Your task to perform on an android device: Open internet settings Image 0: 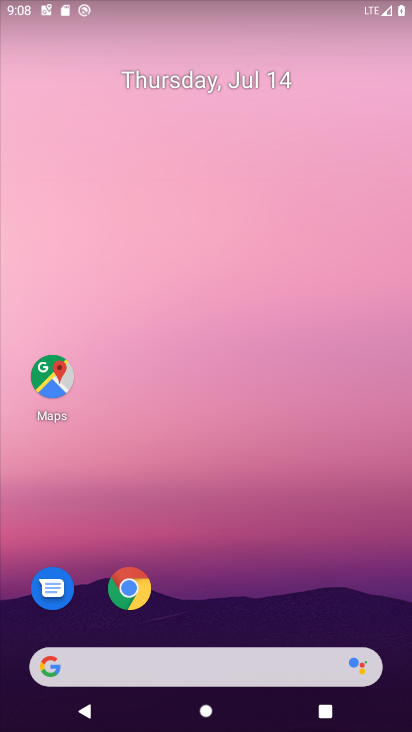
Step 0: drag from (288, 575) to (292, 26)
Your task to perform on an android device: Open internet settings Image 1: 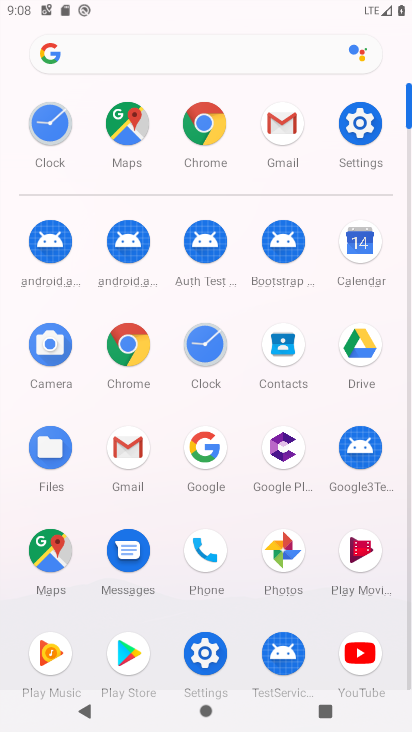
Step 1: click (204, 650)
Your task to perform on an android device: Open internet settings Image 2: 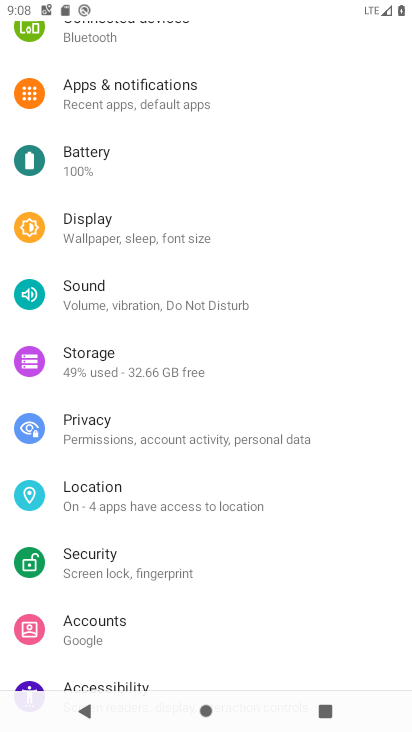
Step 2: drag from (140, 109) to (163, 502)
Your task to perform on an android device: Open internet settings Image 3: 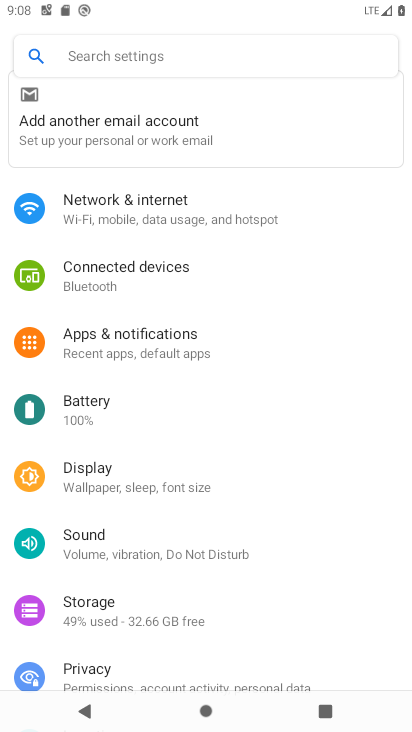
Step 3: click (134, 195)
Your task to perform on an android device: Open internet settings Image 4: 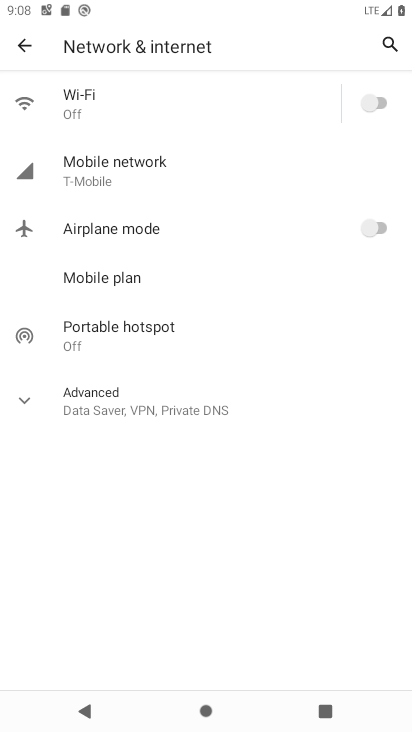
Step 4: task complete